Your task to perform on an android device: Do I have any events today? Image 0: 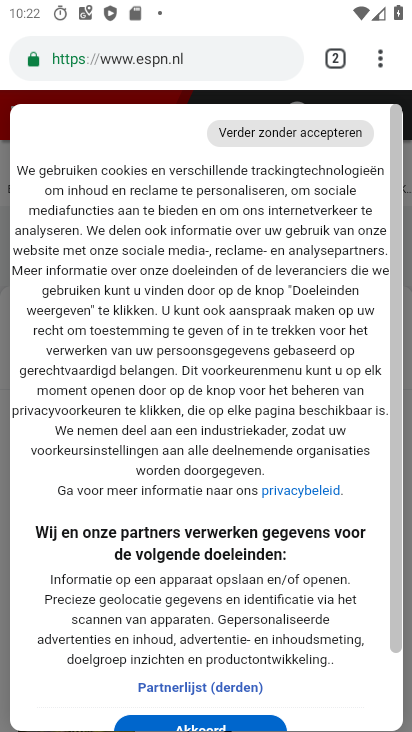
Step 0: press home button
Your task to perform on an android device: Do I have any events today? Image 1: 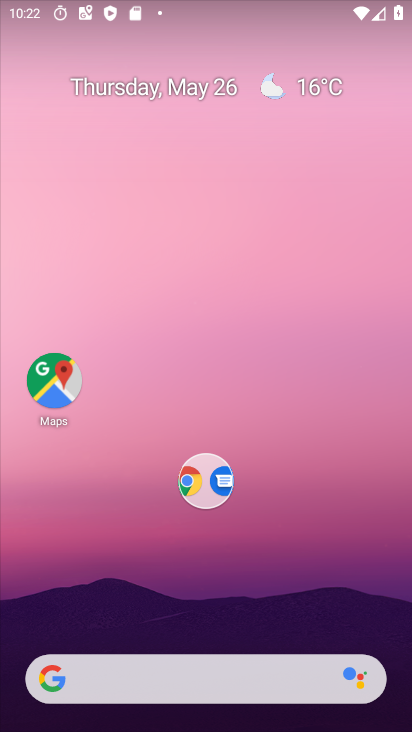
Step 1: click (185, 91)
Your task to perform on an android device: Do I have any events today? Image 2: 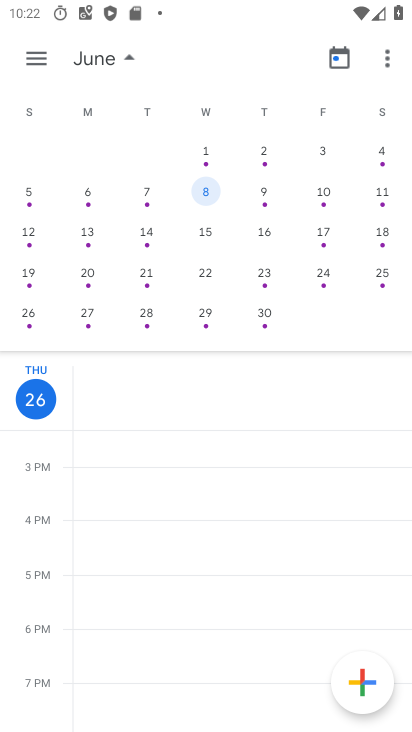
Step 2: click (185, 91)
Your task to perform on an android device: Do I have any events today? Image 3: 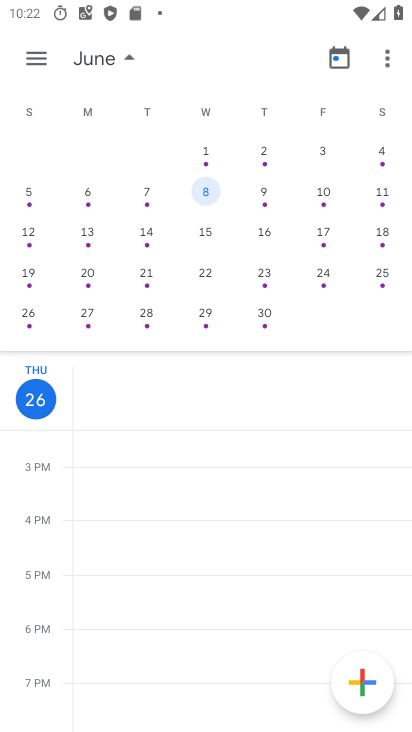
Step 3: task complete